Your task to perform on an android device: turn smart compose on in the gmail app Image 0: 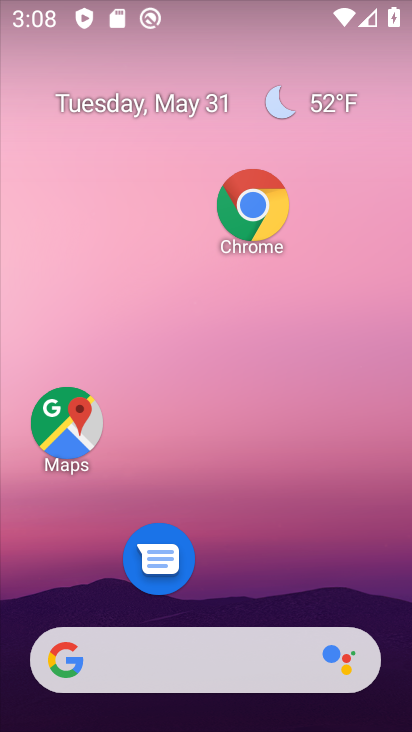
Step 0: drag from (244, 595) to (200, 221)
Your task to perform on an android device: turn smart compose on in the gmail app Image 1: 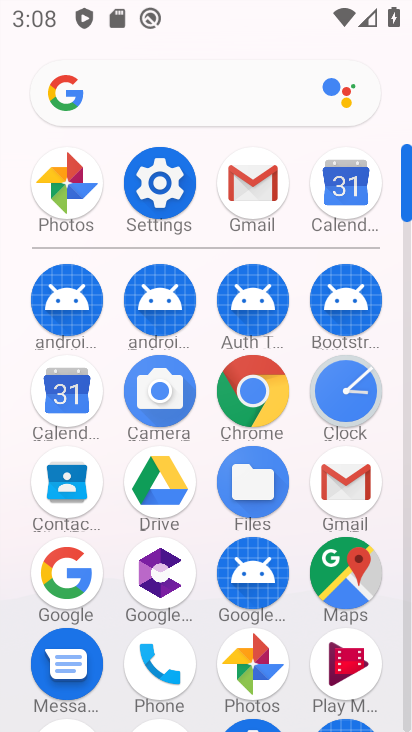
Step 1: click (246, 204)
Your task to perform on an android device: turn smart compose on in the gmail app Image 2: 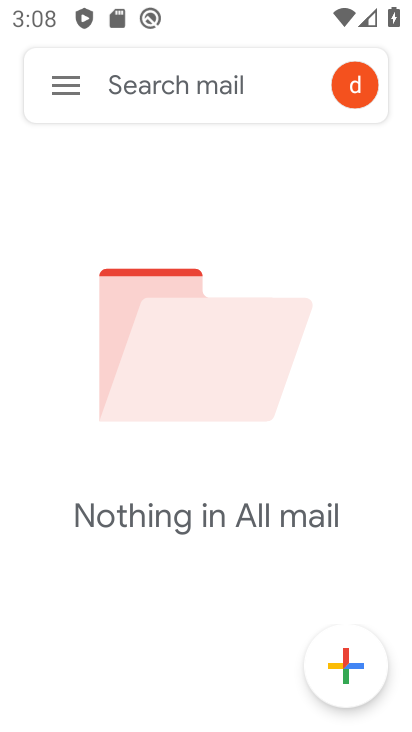
Step 2: click (70, 84)
Your task to perform on an android device: turn smart compose on in the gmail app Image 3: 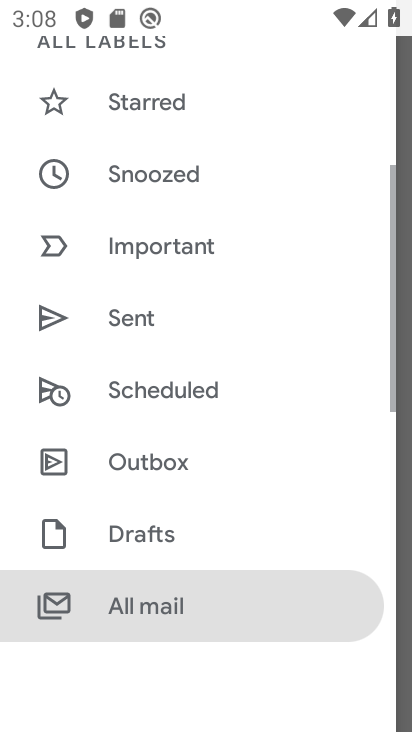
Step 3: drag from (191, 595) to (180, 246)
Your task to perform on an android device: turn smart compose on in the gmail app Image 4: 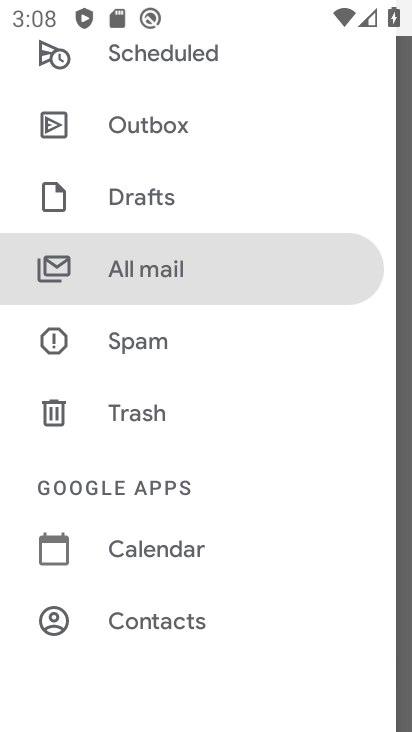
Step 4: drag from (147, 600) to (173, 250)
Your task to perform on an android device: turn smart compose on in the gmail app Image 5: 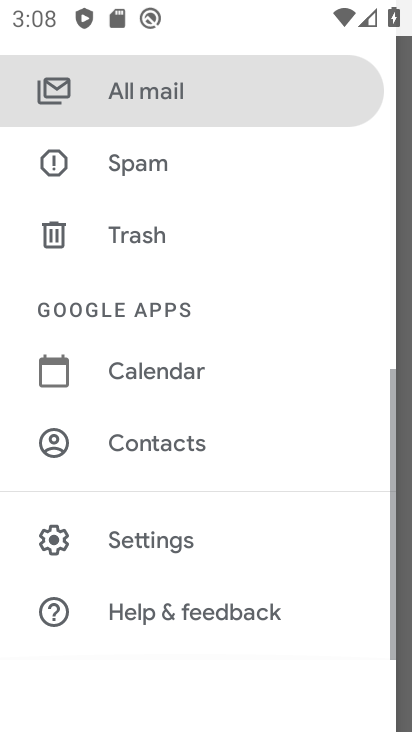
Step 5: click (172, 535)
Your task to perform on an android device: turn smart compose on in the gmail app Image 6: 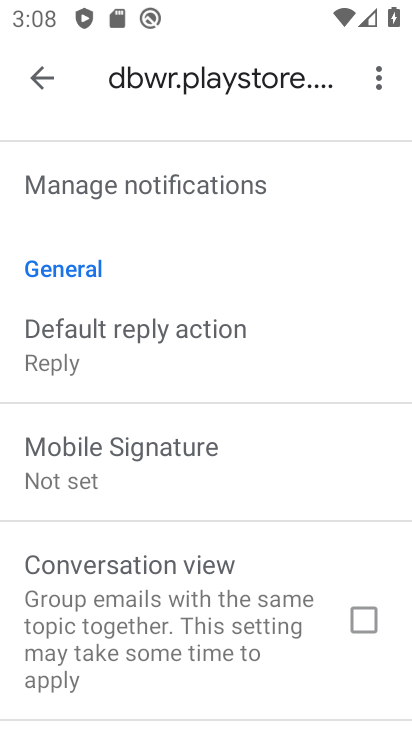
Step 6: task complete